Your task to perform on an android device: turn off notifications in google photos Image 0: 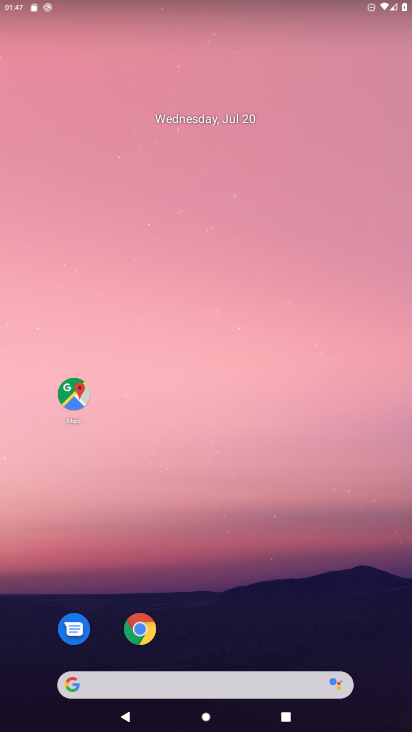
Step 0: drag from (186, 604) to (180, 63)
Your task to perform on an android device: turn off notifications in google photos Image 1: 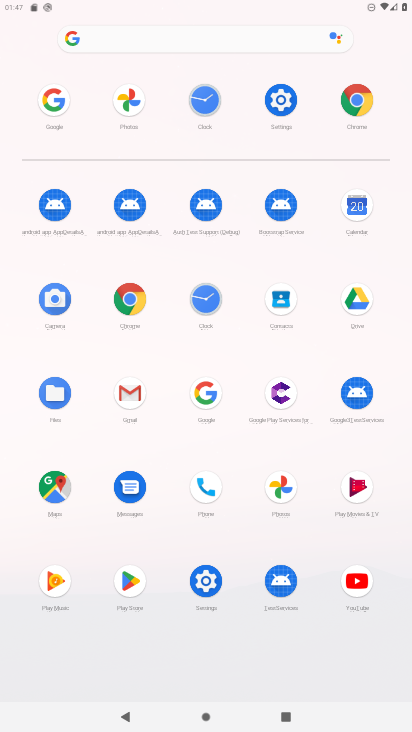
Step 1: click (288, 501)
Your task to perform on an android device: turn off notifications in google photos Image 2: 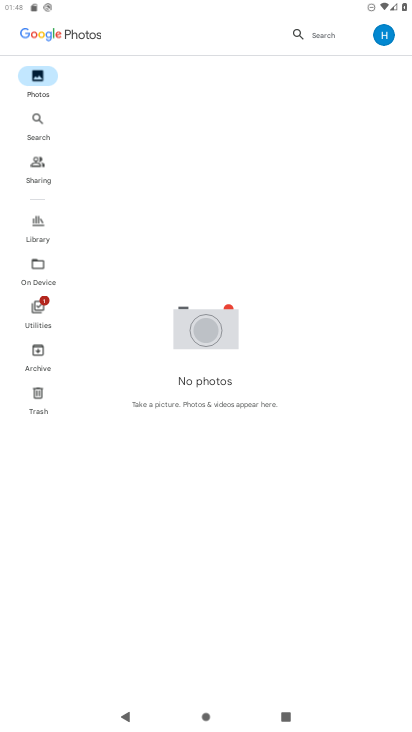
Step 2: press home button
Your task to perform on an android device: turn off notifications in google photos Image 3: 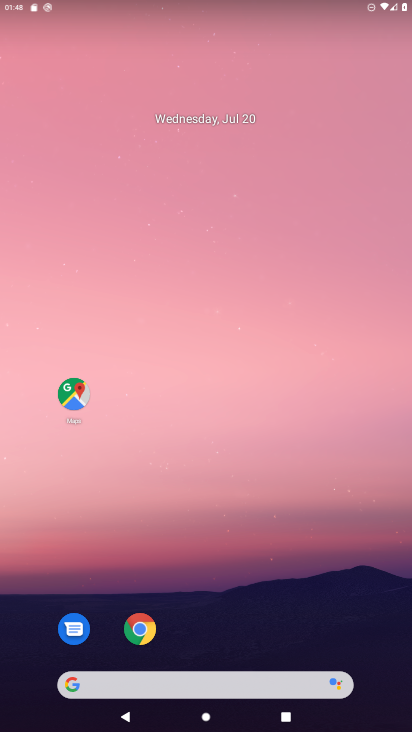
Step 3: drag from (203, 645) to (198, 97)
Your task to perform on an android device: turn off notifications in google photos Image 4: 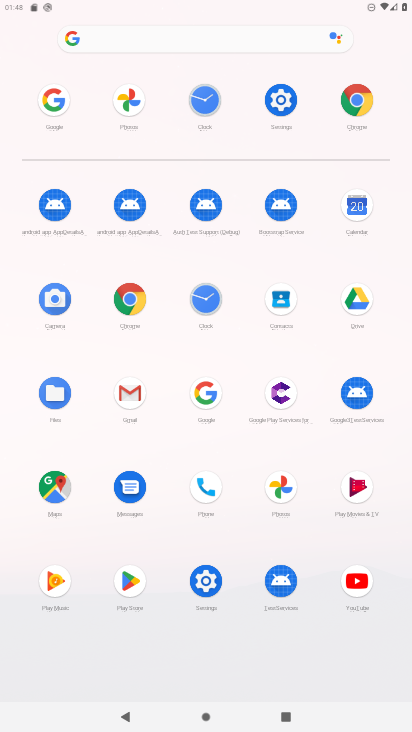
Step 4: click (280, 491)
Your task to perform on an android device: turn off notifications in google photos Image 5: 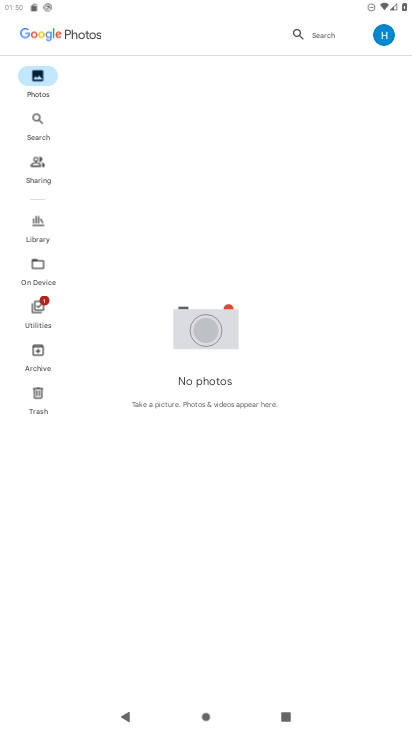
Step 5: click (381, 44)
Your task to perform on an android device: turn off notifications in google photos Image 6: 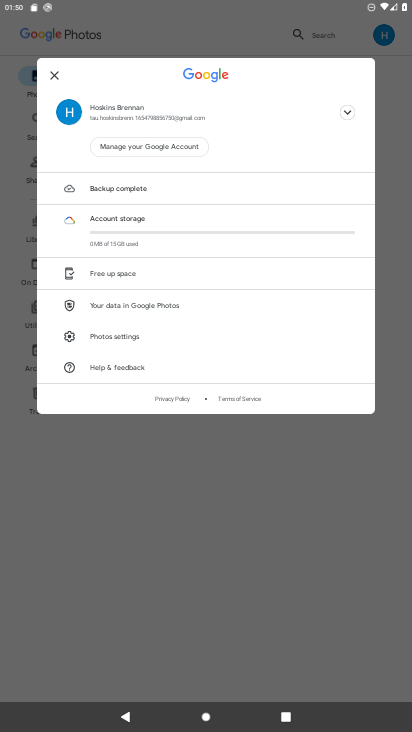
Step 6: click (125, 334)
Your task to perform on an android device: turn off notifications in google photos Image 7: 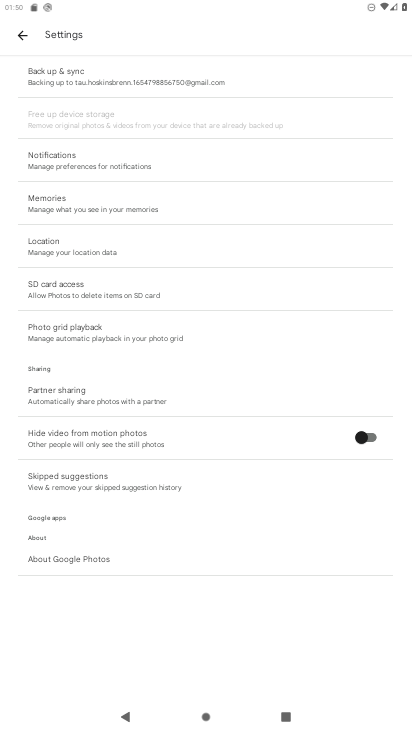
Step 7: click (71, 158)
Your task to perform on an android device: turn off notifications in google photos Image 8: 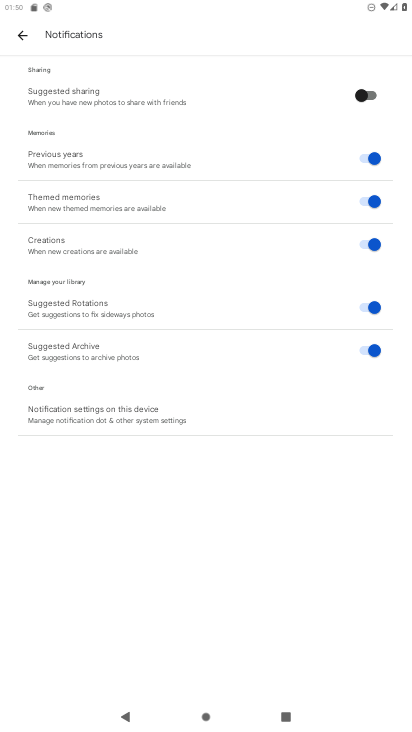
Step 8: click (363, 159)
Your task to perform on an android device: turn off notifications in google photos Image 9: 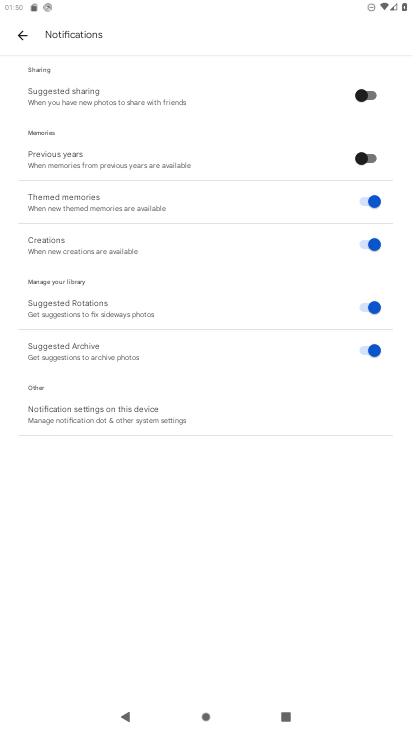
Step 9: click (368, 198)
Your task to perform on an android device: turn off notifications in google photos Image 10: 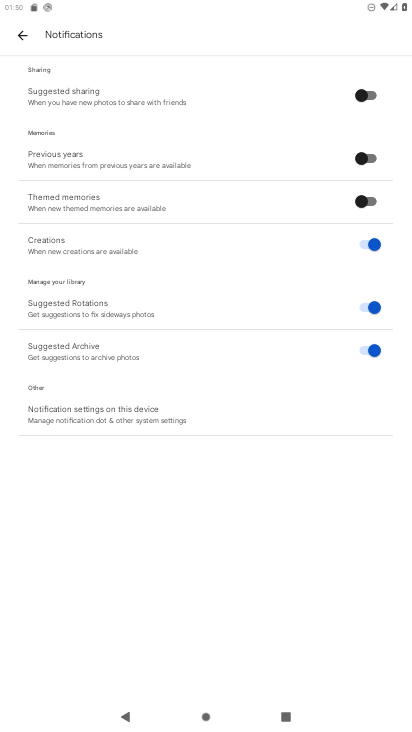
Step 10: click (369, 241)
Your task to perform on an android device: turn off notifications in google photos Image 11: 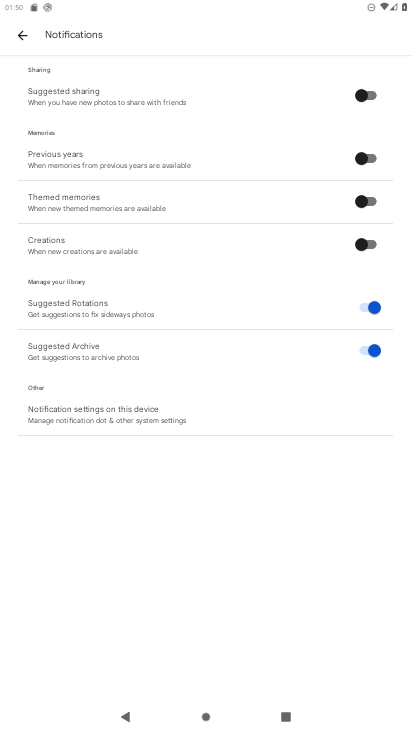
Step 11: click (368, 311)
Your task to perform on an android device: turn off notifications in google photos Image 12: 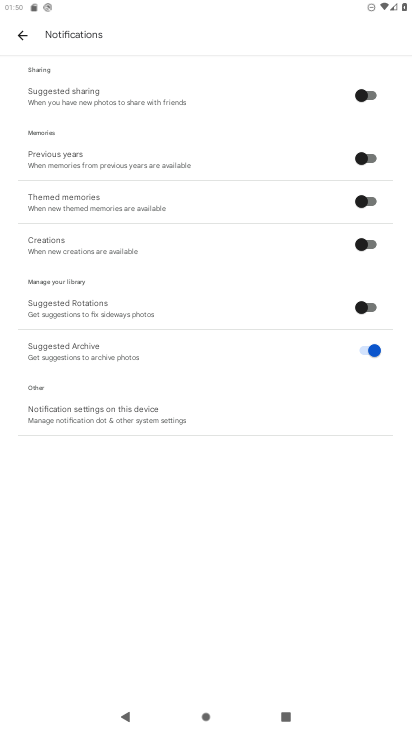
Step 12: click (368, 357)
Your task to perform on an android device: turn off notifications in google photos Image 13: 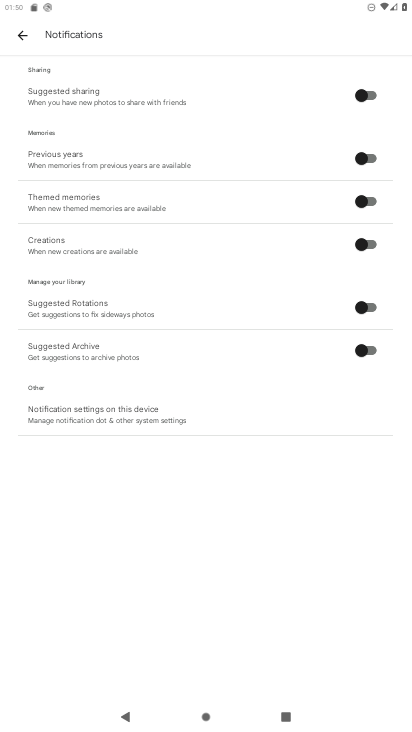
Step 13: task complete